Your task to perform on an android device: Open sound settings Image 0: 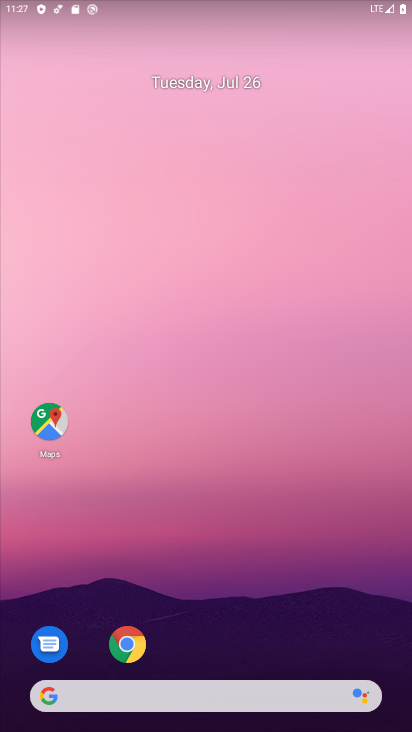
Step 0: drag from (250, 647) to (245, 134)
Your task to perform on an android device: Open sound settings Image 1: 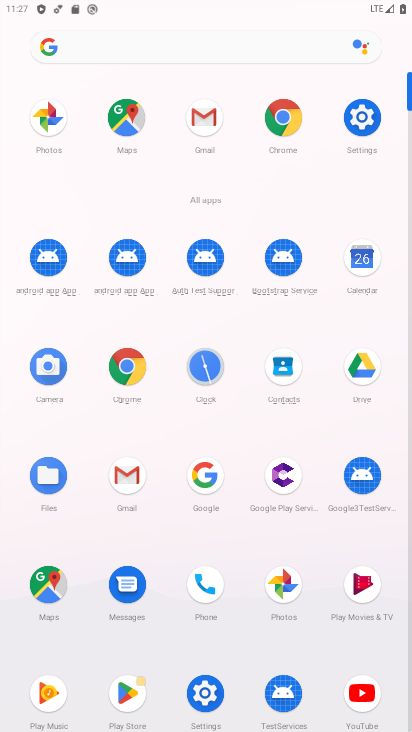
Step 1: click (366, 123)
Your task to perform on an android device: Open sound settings Image 2: 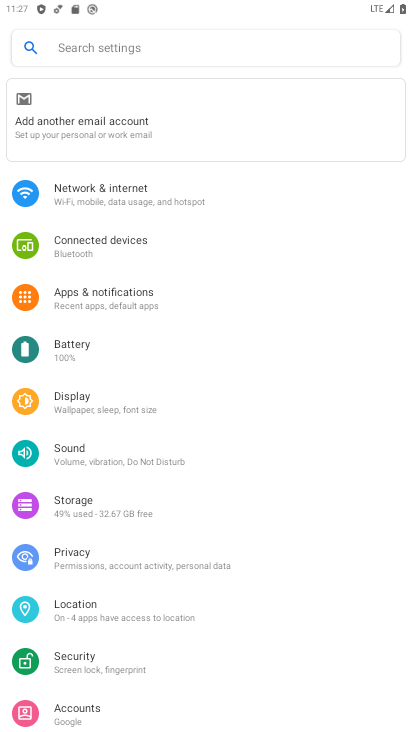
Step 2: click (139, 455)
Your task to perform on an android device: Open sound settings Image 3: 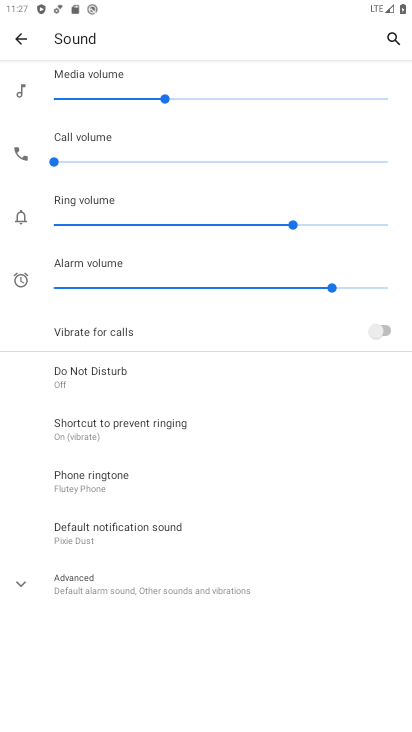
Step 3: task complete